Your task to perform on an android device: Open internet settings Image 0: 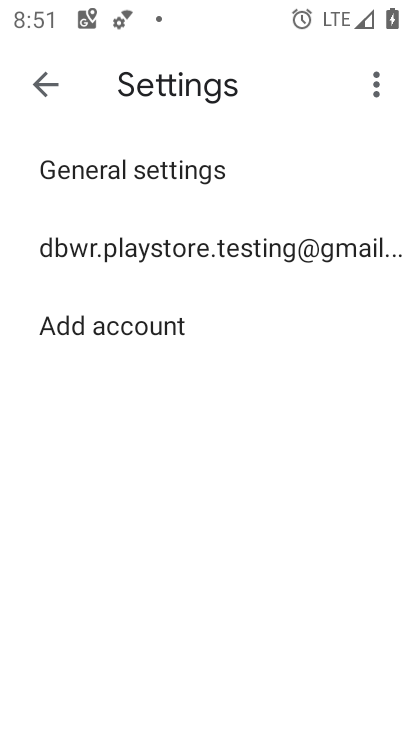
Step 0: drag from (202, 594) to (238, 459)
Your task to perform on an android device: Open internet settings Image 1: 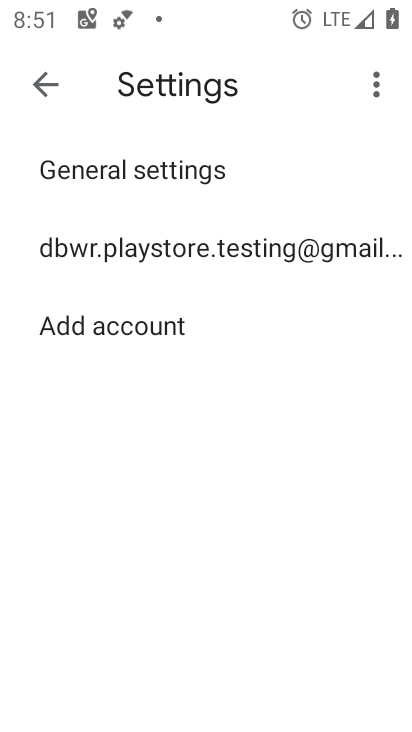
Step 1: press home button
Your task to perform on an android device: Open internet settings Image 2: 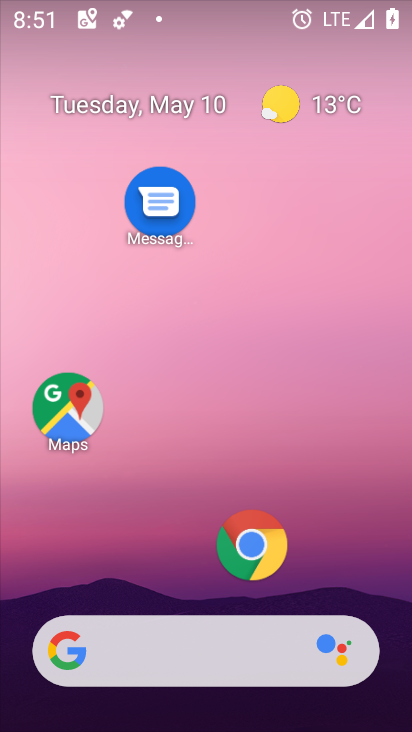
Step 2: drag from (194, 603) to (307, 0)
Your task to perform on an android device: Open internet settings Image 3: 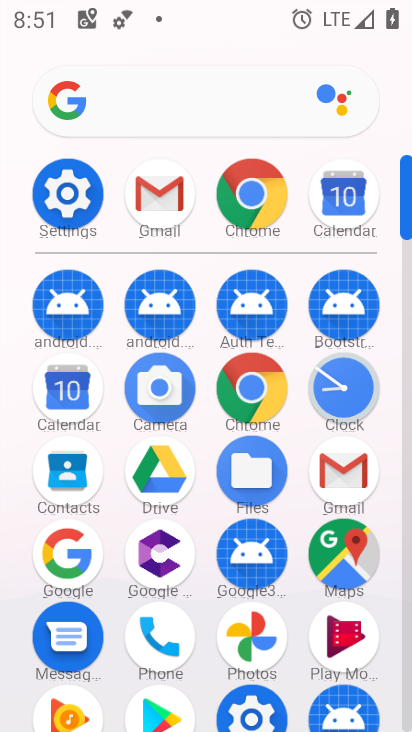
Step 3: click (65, 188)
Your task to perform on an android device: Open internet settings Image 4: 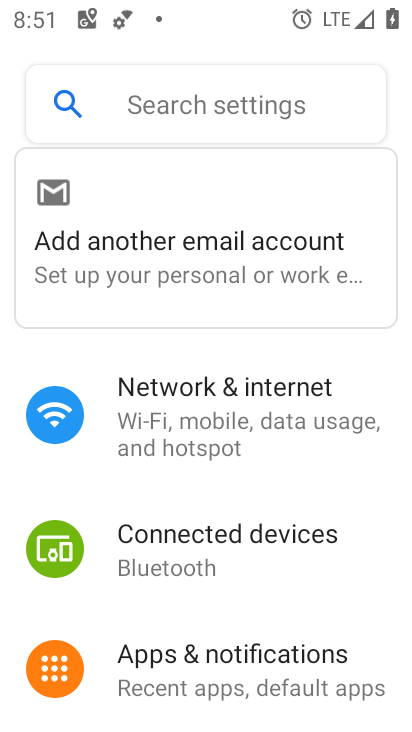
Step 4: click (205, 419)
Your task to perform on an android device: Open internet settings Image 5: 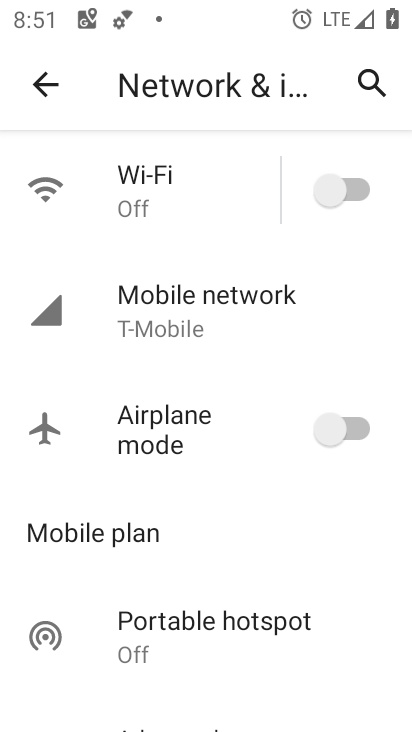
Step 5: drag from (189, 593) to (240, 132)
Your task to perform on an android device: Open internet settings Image 6: 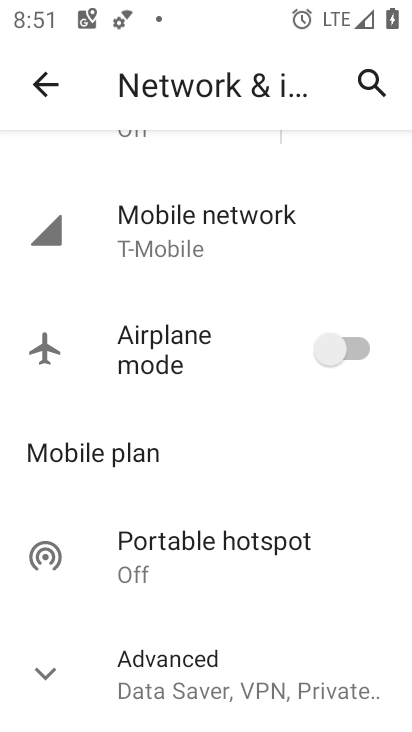
Step 6: click (55, 668)
Your task to perform on an android device: Open internet settings Image 7: 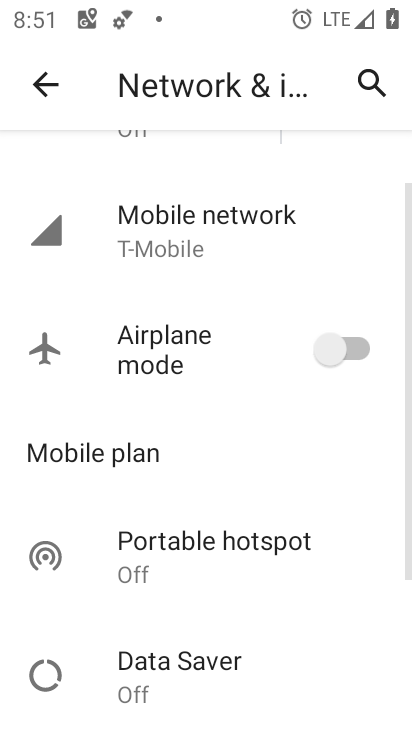
Step 7: task complete